Your task to perform on an android device: Go to calendar. Show me events next week Image 0: 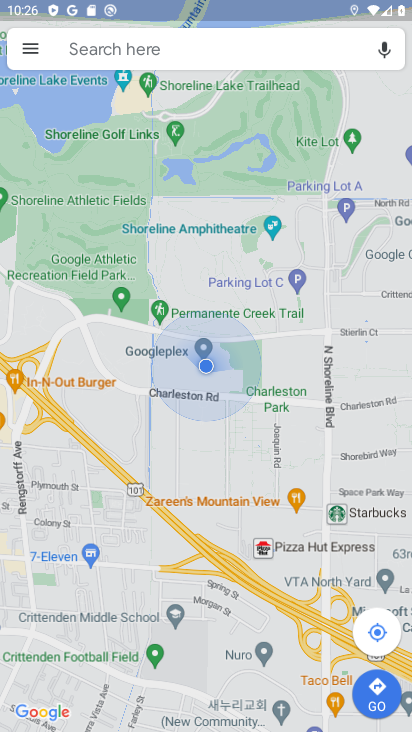
Step 0: press home button
Your task to perform on an android device: Go to calendar. Show me events next week Image 1: 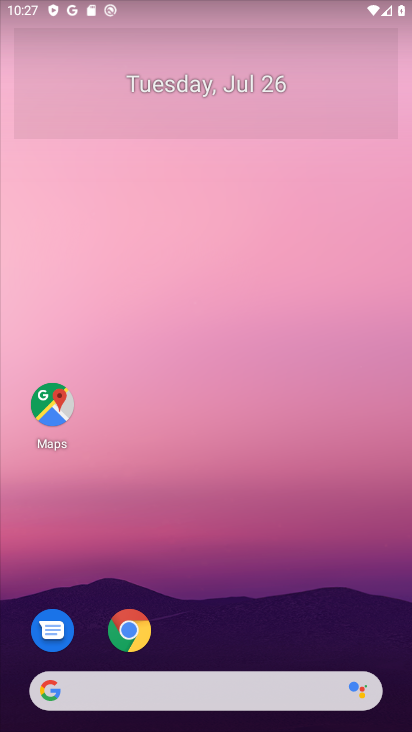
Step 1: drag from (199, 667) to (292, 104)
Your task to perform on an android device: Go to calendar. Show me events next week Image 2: 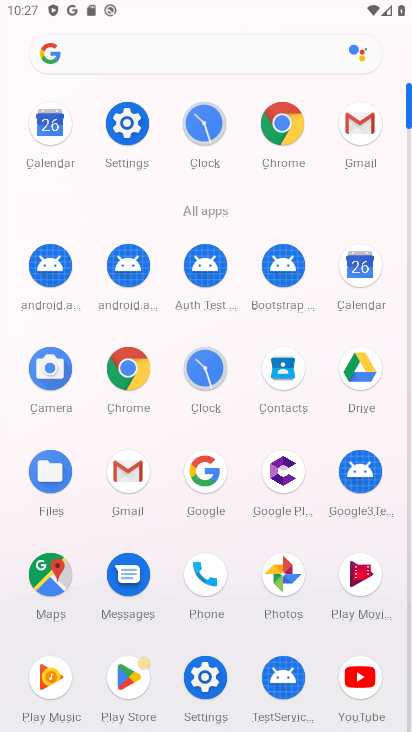
Step 2: click (364, 285)
Your task to perform on an android device: Go to calendar. Show me events next week Image 3: 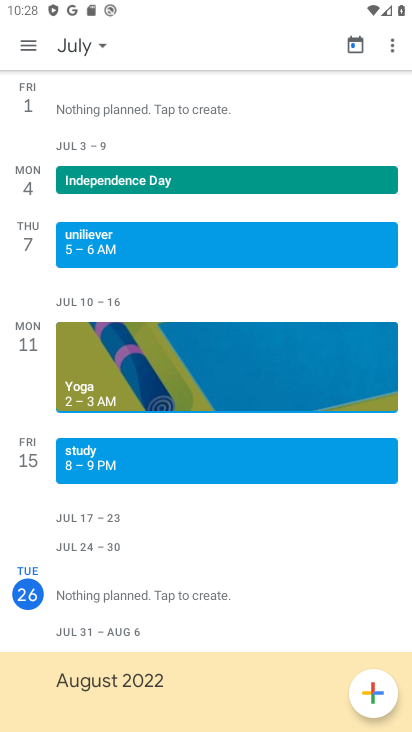
Step 3: click (74, 46)
Your task to perform on an android device: Go to calendar. Show me events next week Image 4: 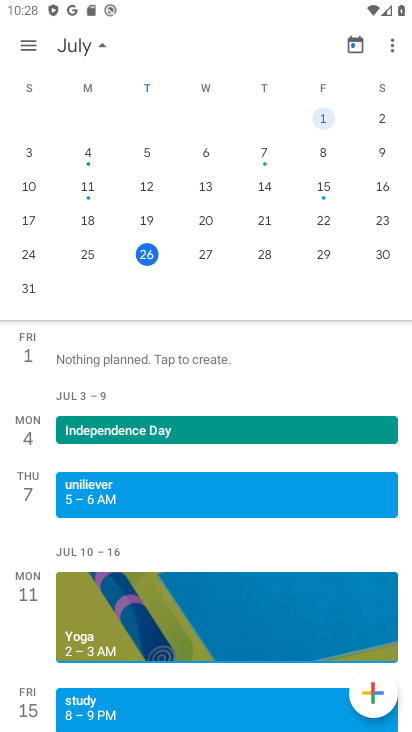
Step 4: click (30, 282)
Your task to perform on an android device: Go to calendar. Show me events next week Image 5: 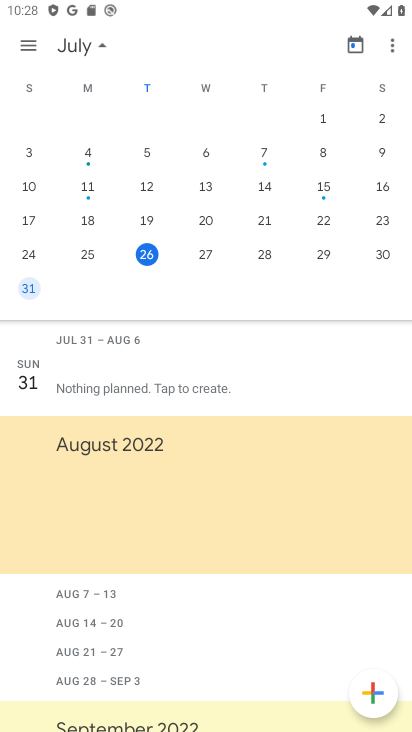
Step 5: task complete